Your task to perform on an android device: change the clock display to digital Image 0: 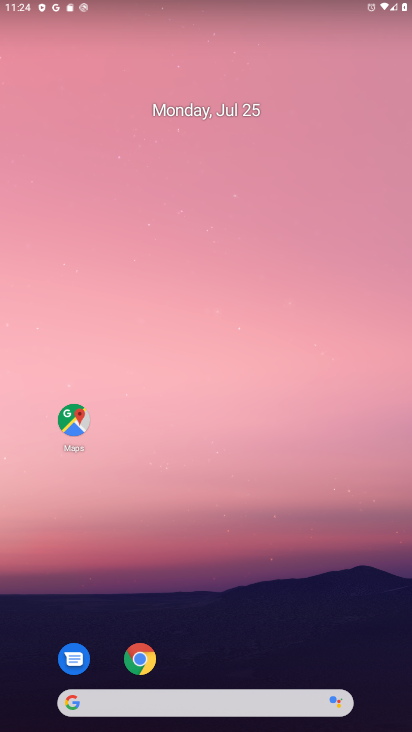
Step 0: drag from (233, 600) to (233, 191)
Your task to perform on an android device: change the clock display to digital Image 1: 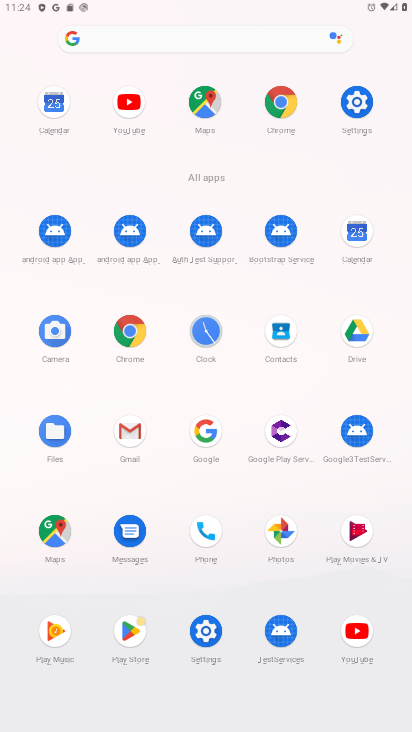
Step 1: click (201, 330)
Your task to perform on an android device: change the clock display to digital Image 2: 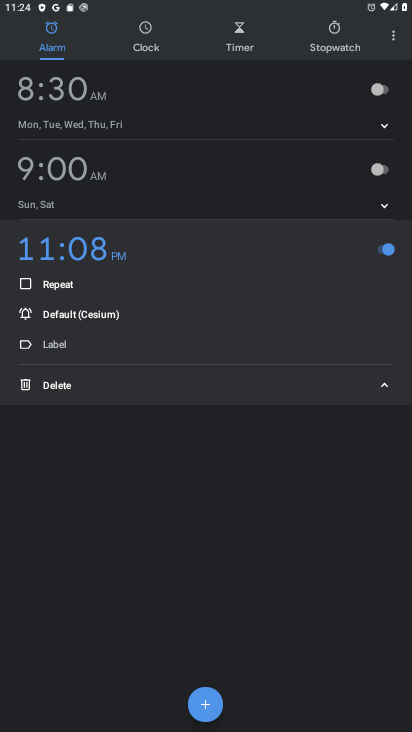
Step 2: click (397, 35)
Your task to perform on an android device: change the clock display to digital Image 3: 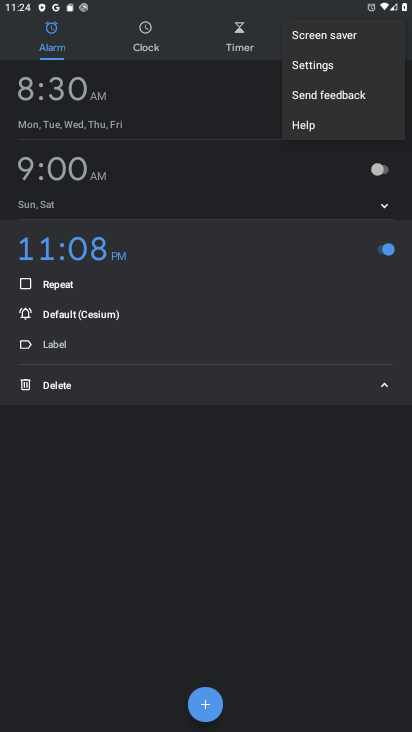
Step 3: click (327, 62)
Your task to perform on an android device: change the clock display to digital Image 4: 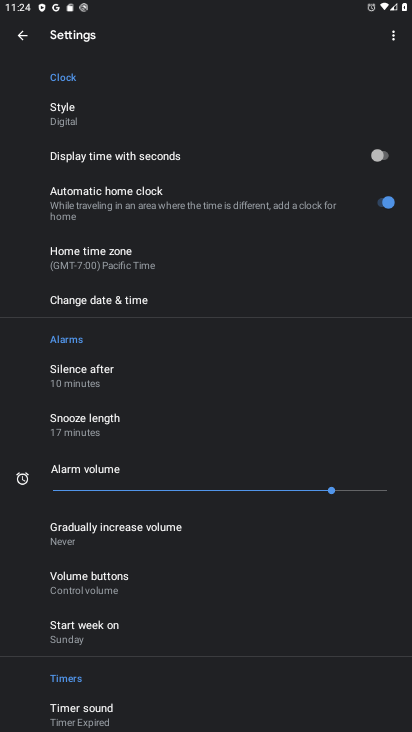
Step 4: click (67, 109)
Your task to perform on an android device: change the clock display to digital Image 5: 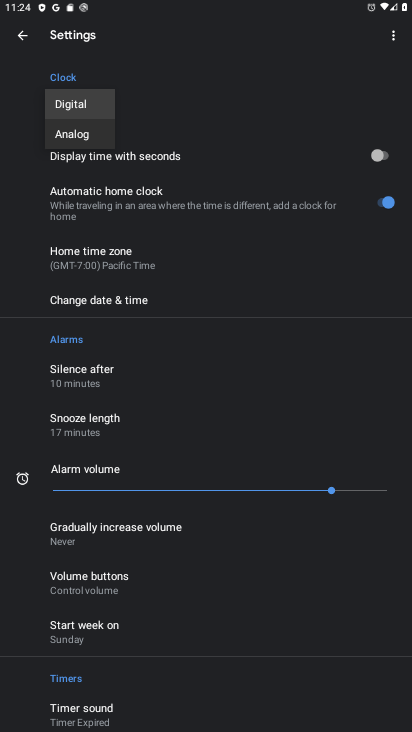
Step 5: task complete